Your task to perform on an android device: Open Amazon Image 0: 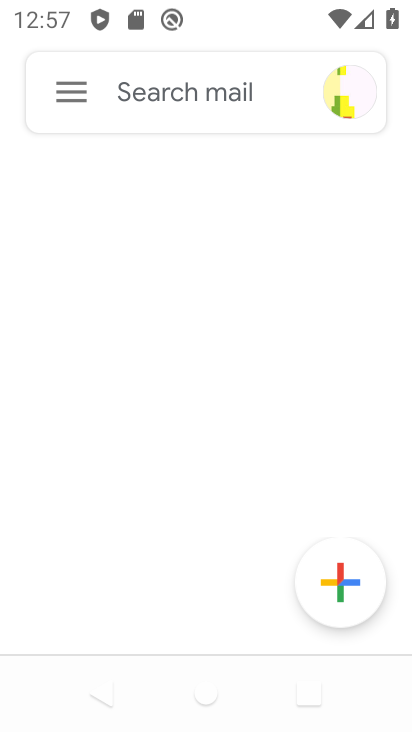
Step 0: press home button
Your task to perform on an android device: Open Amazon Image 1: 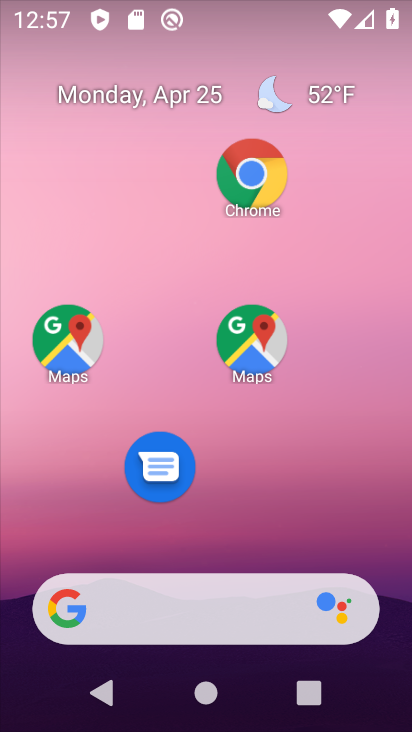
Step 1: click (244, 176)
Your task to perform on an android device: Open Amazon Image 2: 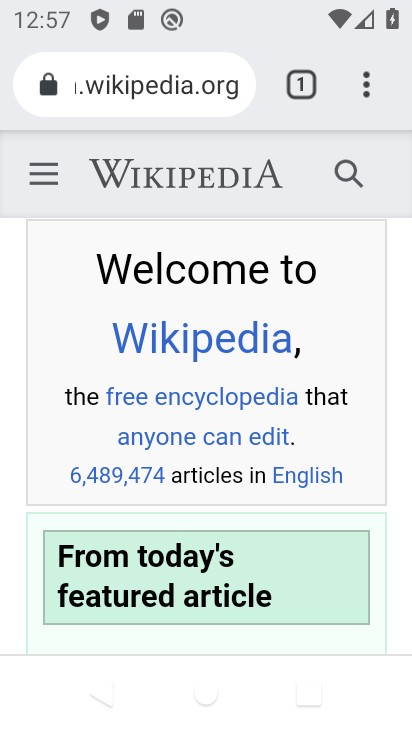
Step 2: press back button
Your task to perform on an android device: Open Amazon Image 3: 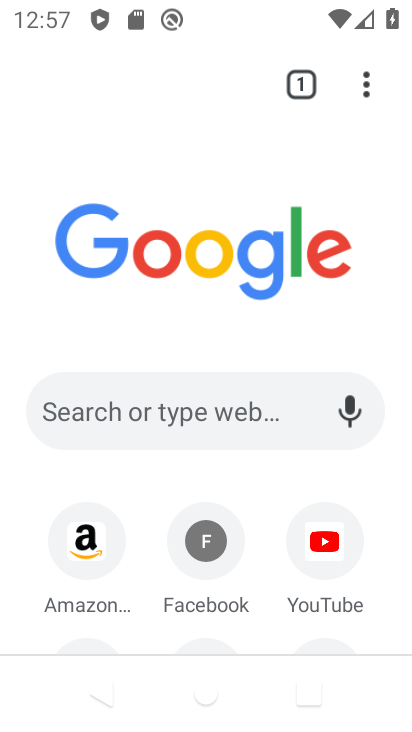
Step 3: click (82, 547)
Your task to perform on an android device: Open Amazon Image 4: 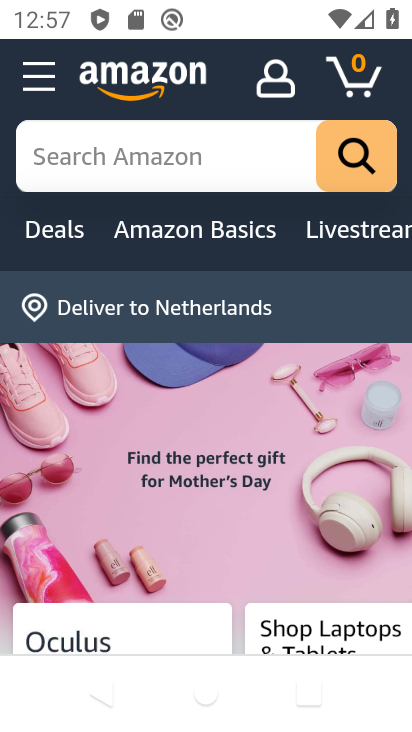
Step 4: task complete